Your task to perform on an android device: Open the web browser Image 0: 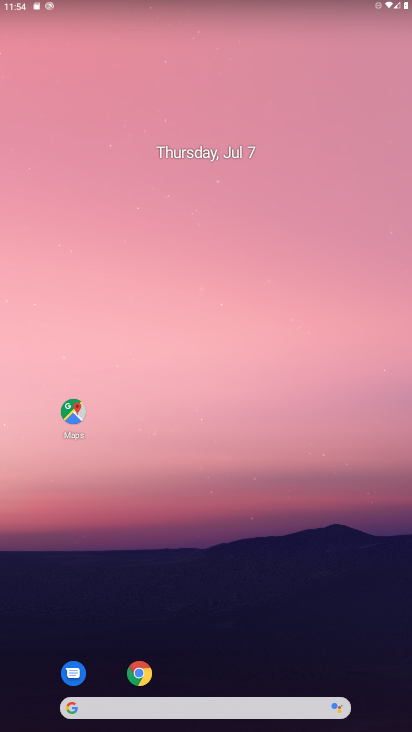
Step 0: click (142, 672)
Your task to perform on an android device: Open the web browser Image 1: 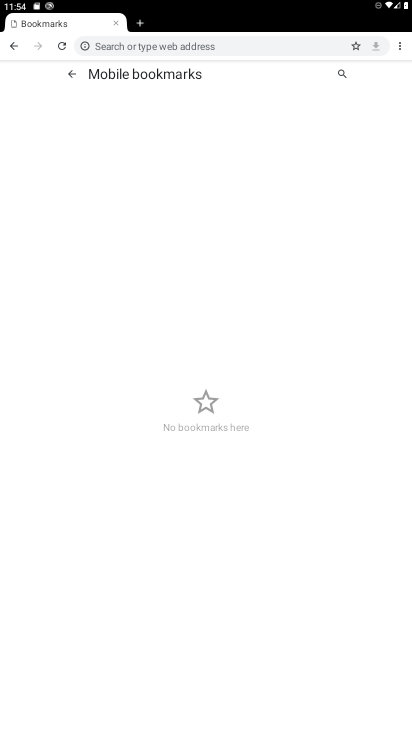
Step 1: click (11, 44)
Your task to perform on an android device: Open the web browser Image 2: 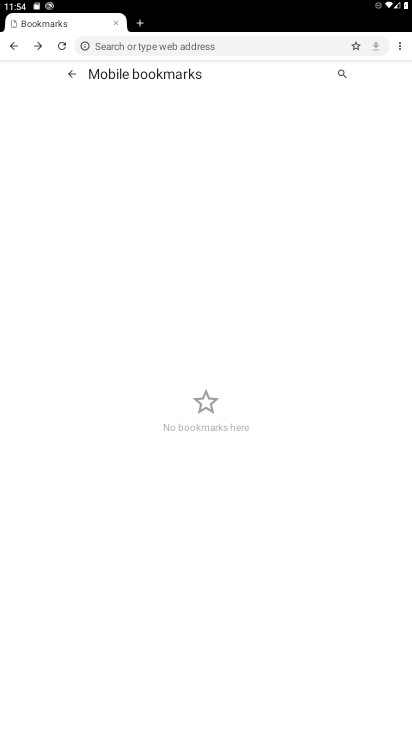
Step 2: task complete